Your task to perform on an android device: Open Android settings Image 0: 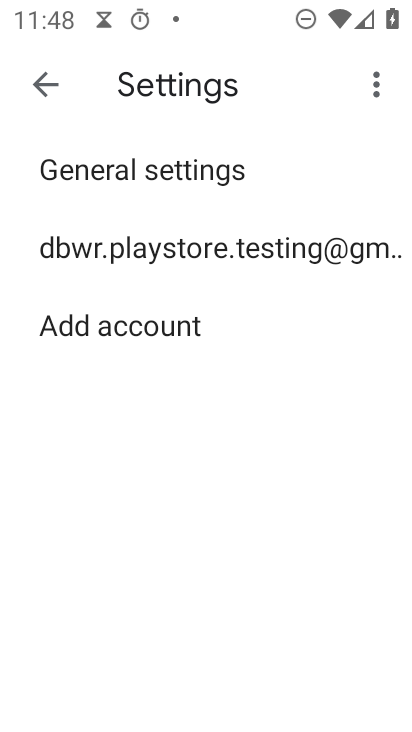
Step 0: click (44, 94)
Your task to perform on an android device: Open Android settings Image 1: 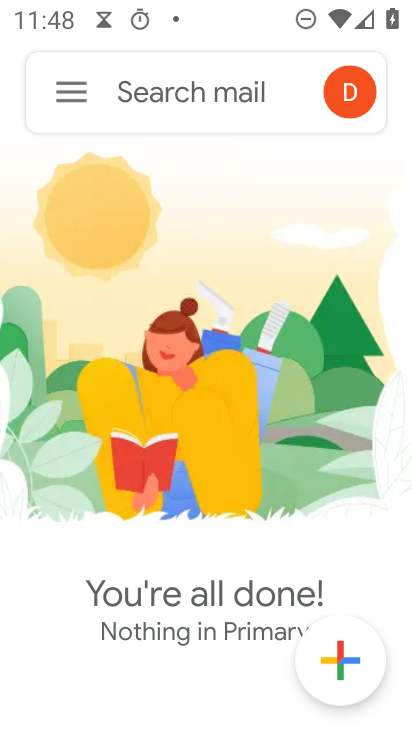
Step 1: click (80, 79)
Your task to perform on an android device: Open Android settings Image 2: 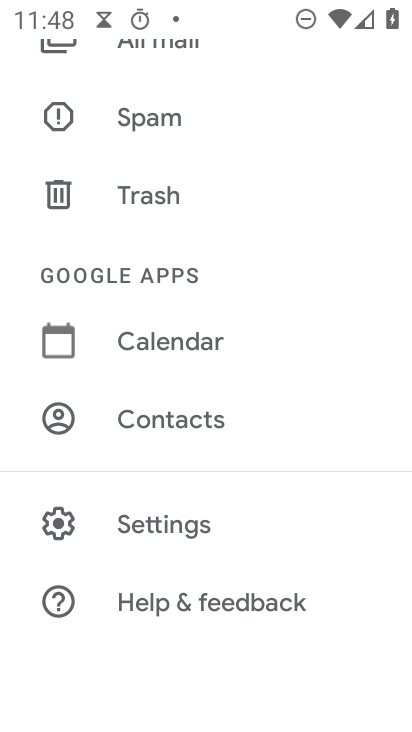
Step 2: click (159, 514)
Your task to perform on an android device: Open Android settings Image 3: 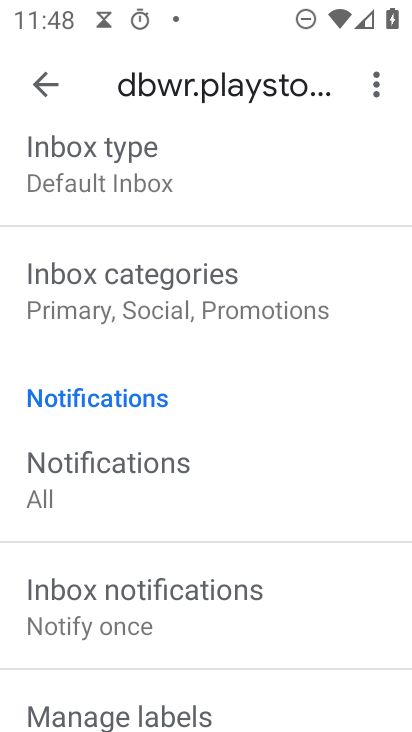
Step 3: task complete